Your task to perform on an android device: turn pop-ups off in chrome Image 0: 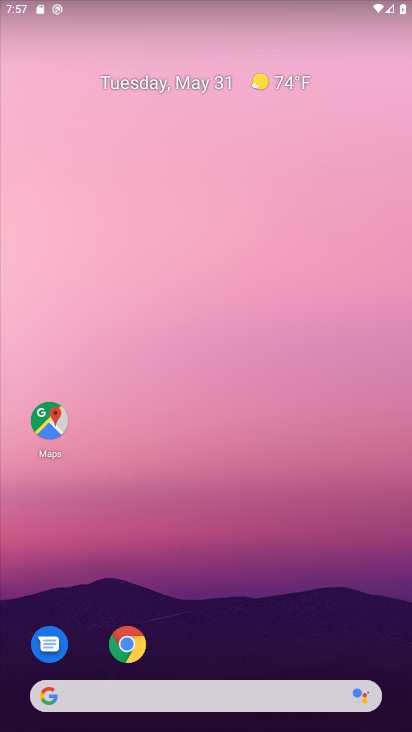
Step 0: press home button
Your task to perform on an android device: turn pop-ups off in chrome Image 1: 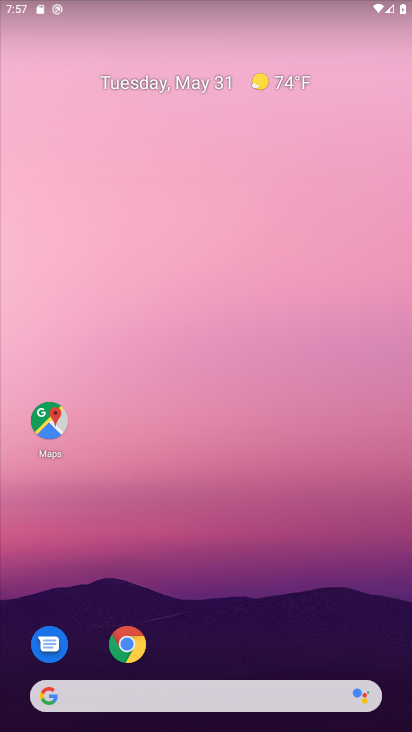
Step 1: click (124, 635)
Your task to perform on an android device: turn pop-ups off in chrome Image 2: 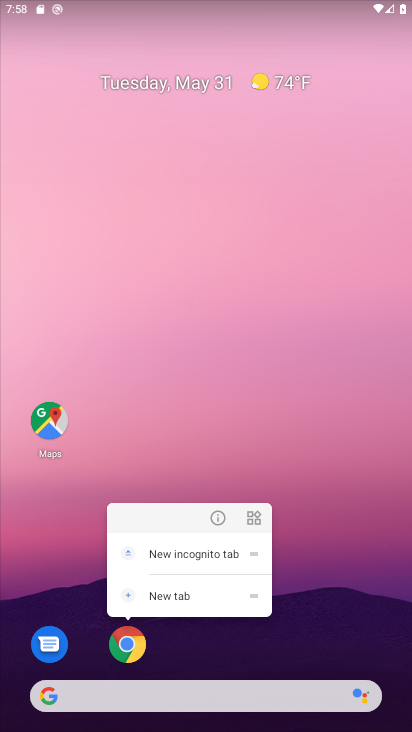
Step 2: click (124, 635)
Your task to perform on an android device: turn pop-ups off in chrome Image 3: 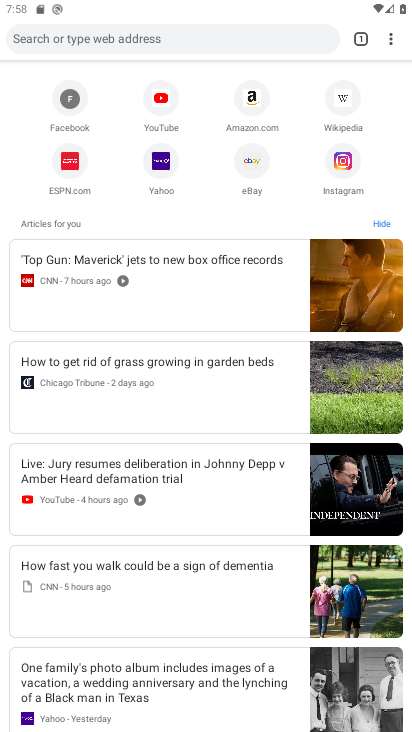
Step 3: click (393, 33)
Your task to perform on an android device: turn pop-ups off in chrome Image 4: 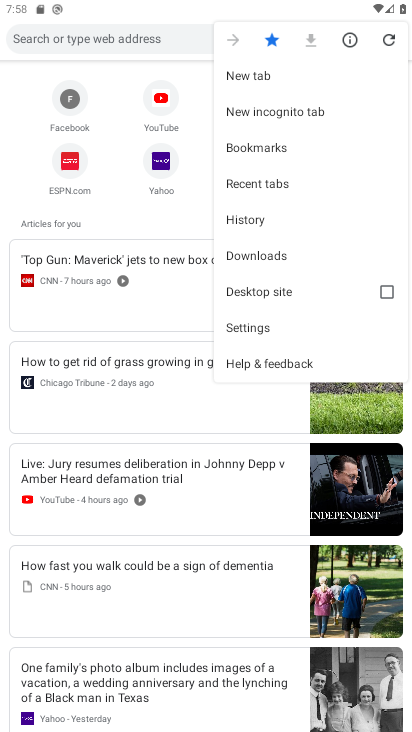
Step 4: click (276, 324)
Your task to perform on an android device: turn pop-ups off in chrome Image 5: 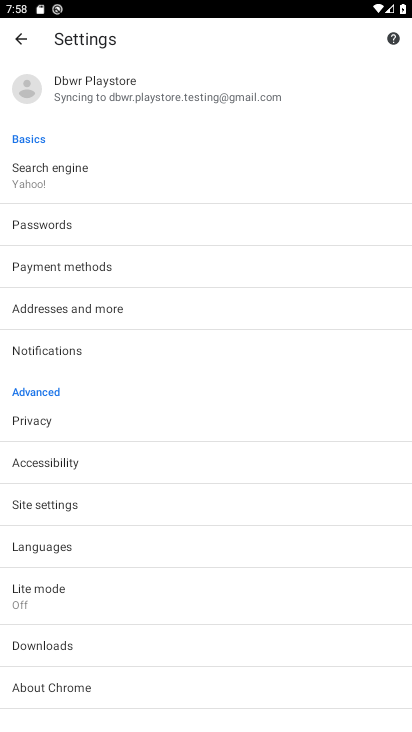
Step 5: click (82, 499)
Your task to perform on an android device: turn pop-ups off in chrome Image 6: 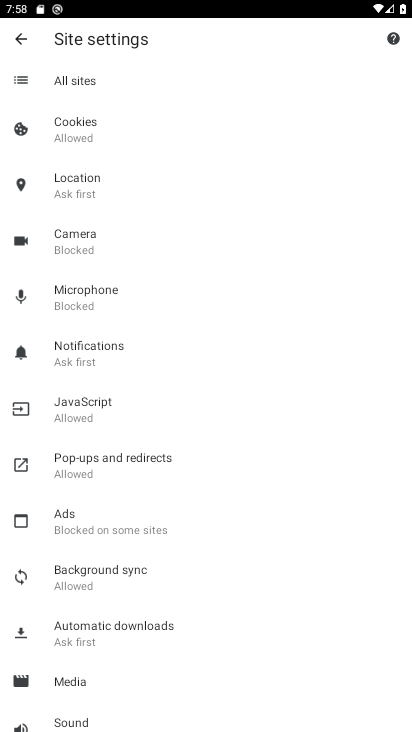
Step 6: click (144, 464)
Your task to perform on an android device: turn pop-ups off in chrome Image 7: 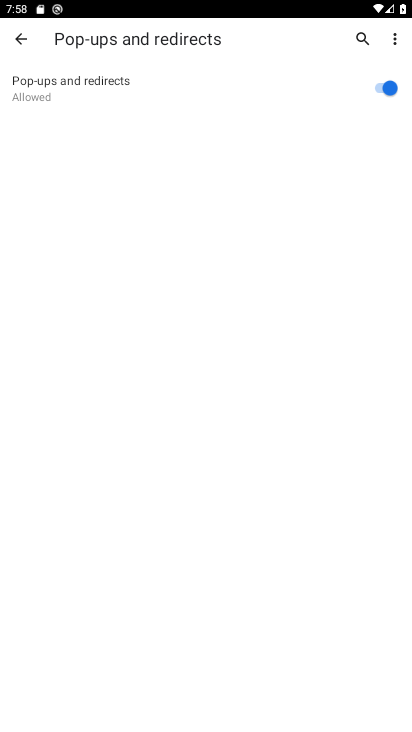
Step 7: click (389, 81)
Your task to perform on an android device: turn pop-ups off in chrome Image 8: 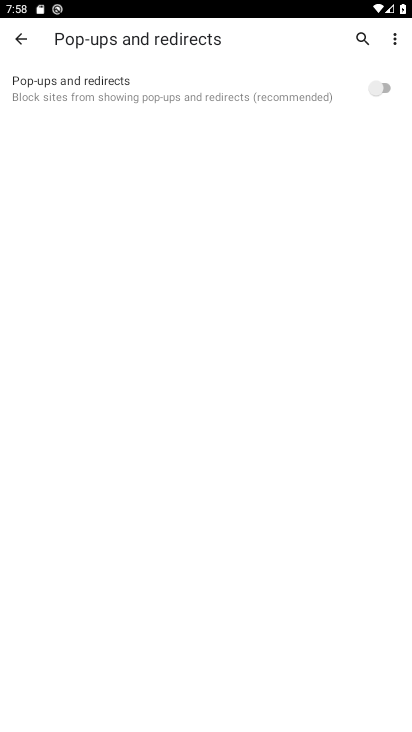
Step 8: task complete